Your task to perform on an android device: toggle show notifications on the lock screen Image 0: 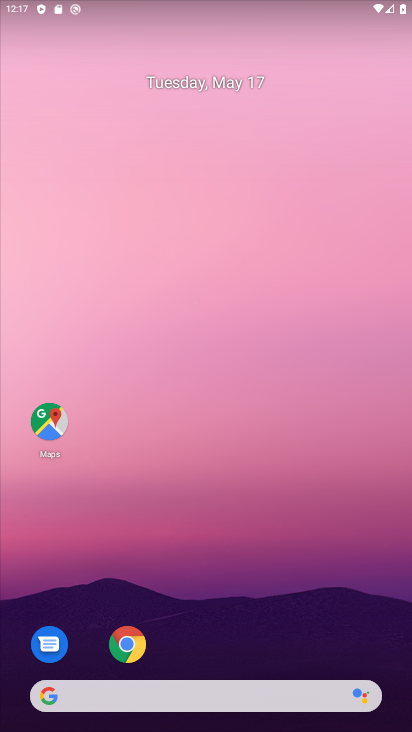
Step 0: drag from (173, 667) to (241, 166)
Your task to perform on an android device: toggle show notifications on the lock screen Image 1: 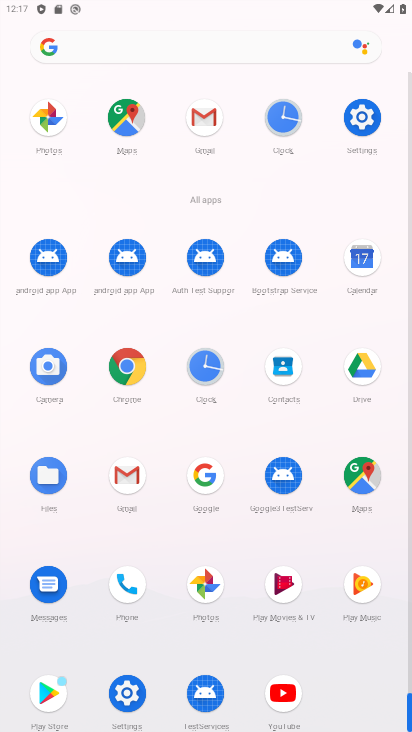
Step 1: drag from (204, 631) to (233, 378)
Your task to perform on an android device: toggle show notifications on the lock screen Image 2: 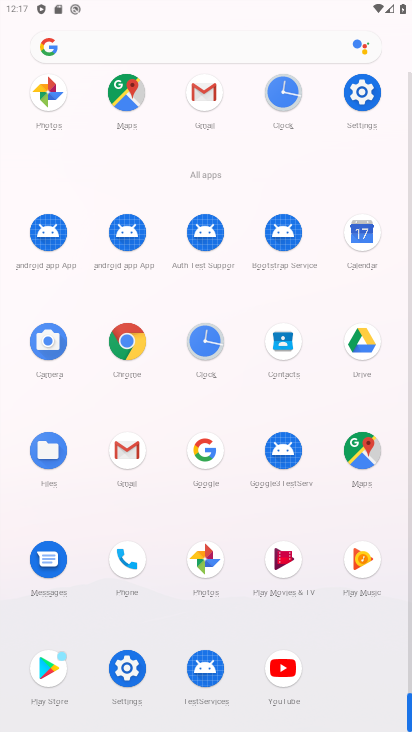
Step 2: click (114, 683)
Your task to perform on an android device: toggle show notifications on the lock screen Image 3: 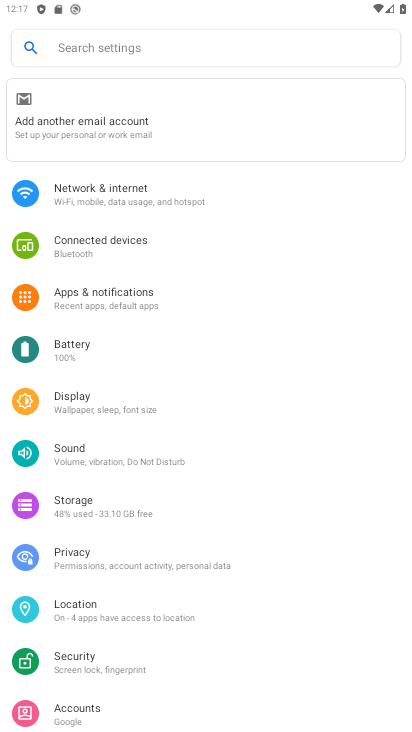
Step 3: click (104, 299)
Your task to perform on an android device: toggle show notifications on the lock screen Image 4: 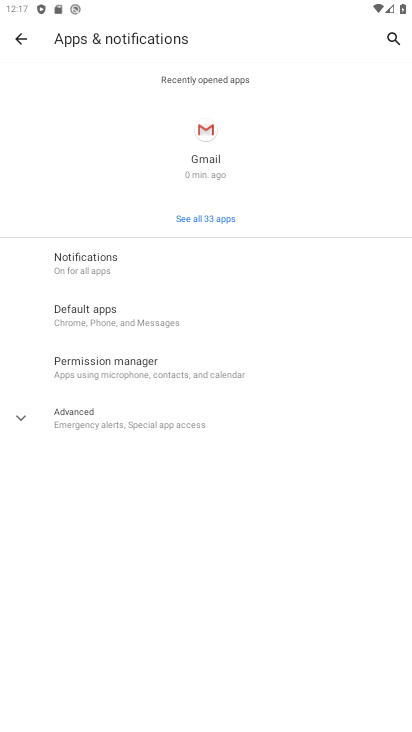
Step 4: click (164, 262)
Your task to perform on an android device: toggle show notifications on the lock screen Image 5: 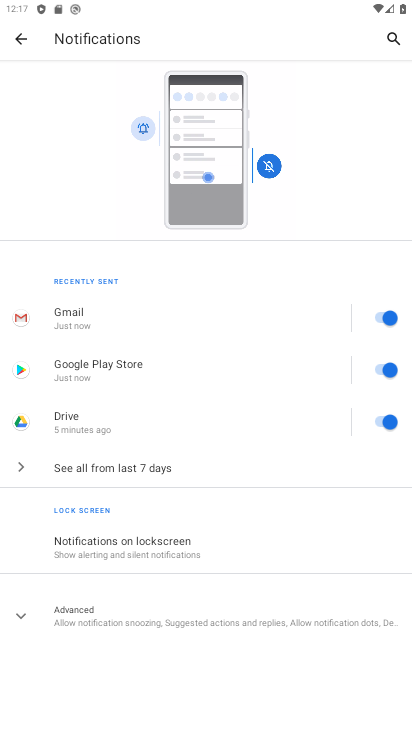
Step 5: drag from (205, 622) to (248, 282)
Your task to perform on an android device: toggle show notifications on the lock screen Image 6: 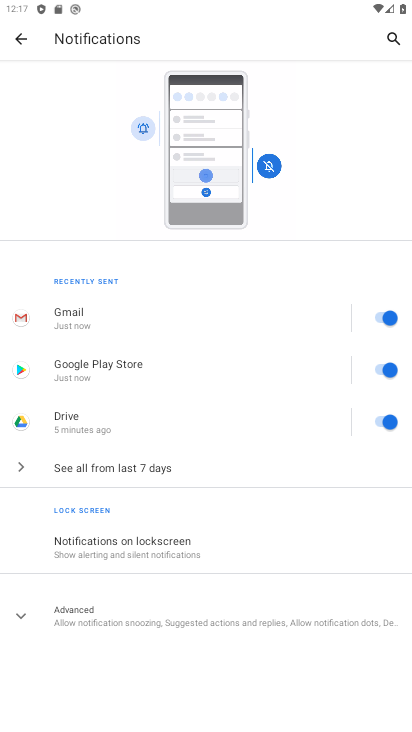
Step 6: click (200, 542)
Your task to perform on an android device: toggle show notifications on the lock screen Image 7: 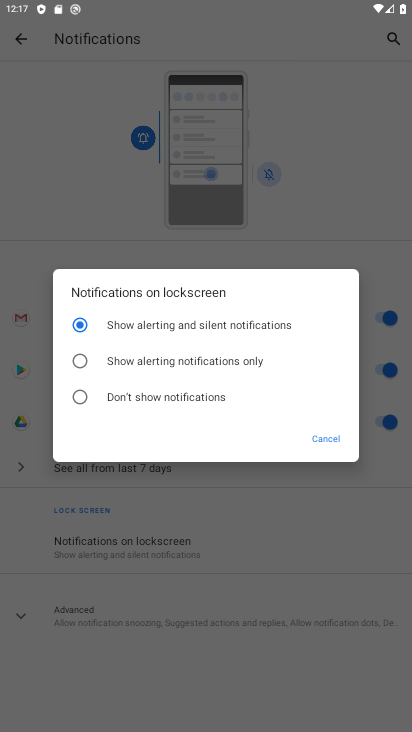
Step 7: click (175, 386)
Your task to perform on an android device: toggle show notifications on the lock screen Image 8: 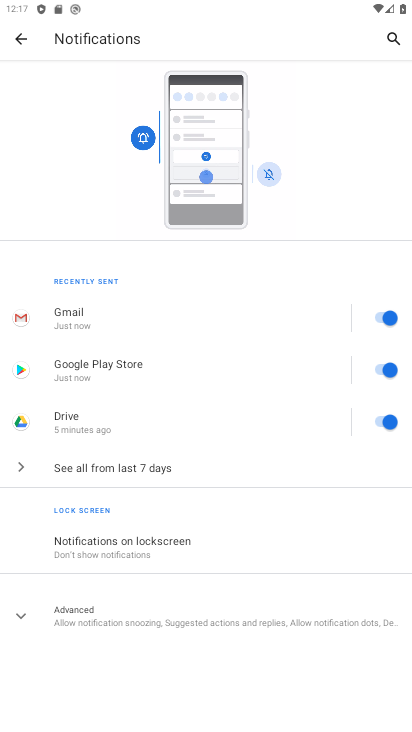
Step 8: task complete